Your task to perform on an android device: Open Google Chrome and click the shortcut for Amazon.com Image 0: 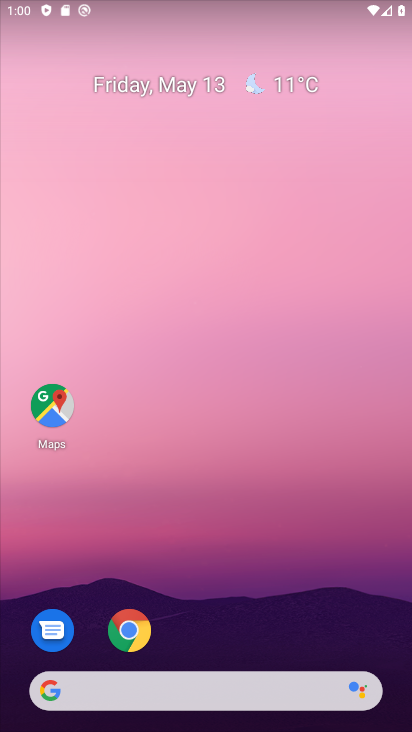
Step 0: click (135, 641)
Your task to perform on an android device: Open Google Chrome and click the shortcut for Amazon.com Image 1: 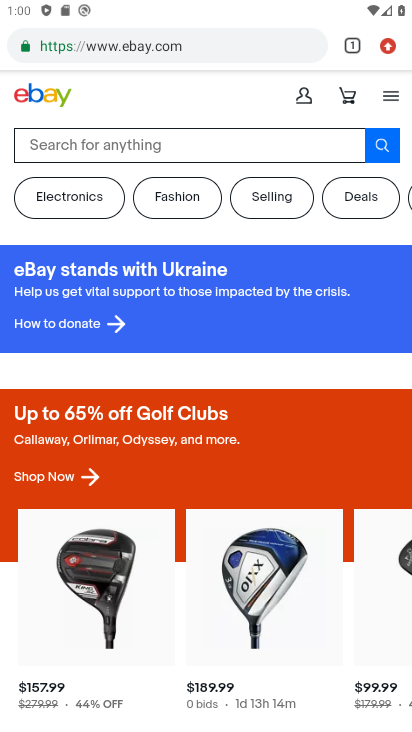
Step 1: click (354, 46)
Your task to perform on an android device: Open Google Chrome and click the shortcut for Amazon.com Image 2: 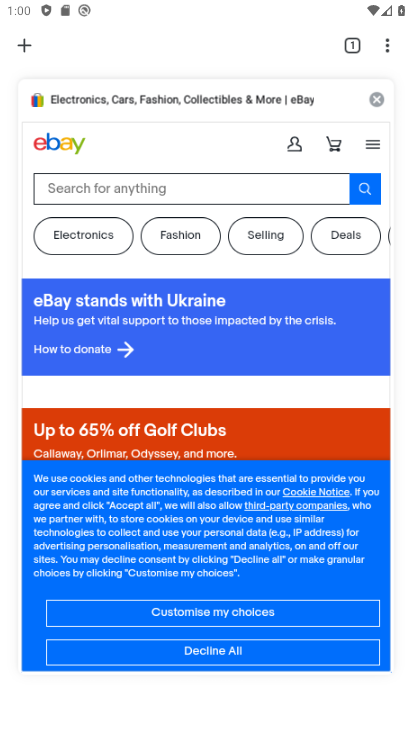
Step 2: click (22, 40)
Your task to perform on an android device: Open Google Chrome and click the shortcut for Amazon.com Image 3: 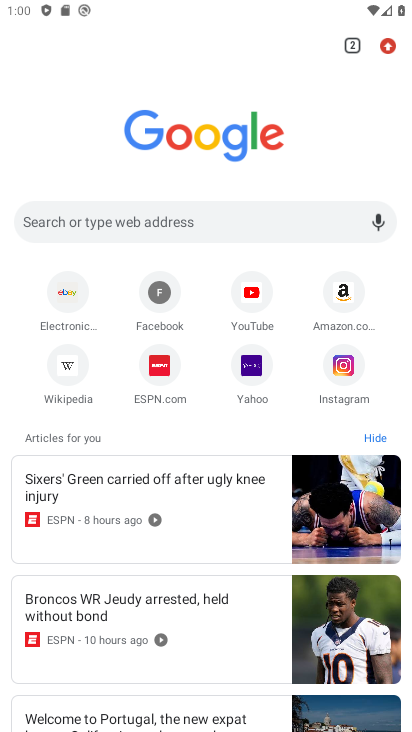
Step 3: click (345, 295)
Your task to perform on an android device: Open Google Chrome and click the shortcut for Amazon.com Image 4: 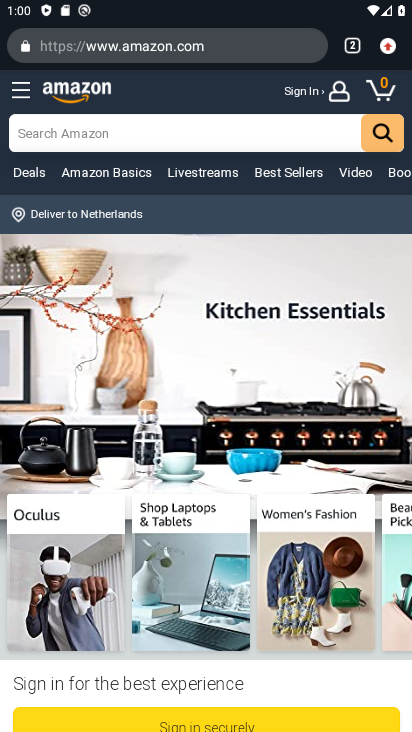
Step 4: task complete